Your task to perform on an android device: Open Chrome and go to settings Image 0: 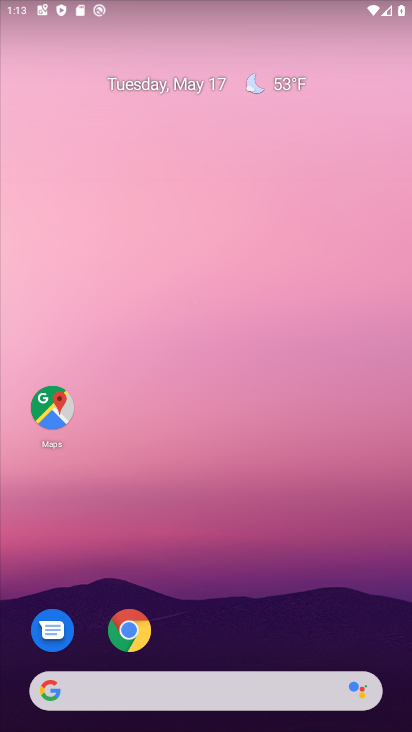
Step 0: click (138, 631)
Your task to perform on an android device: Open Chrome and go to settings Image 1: 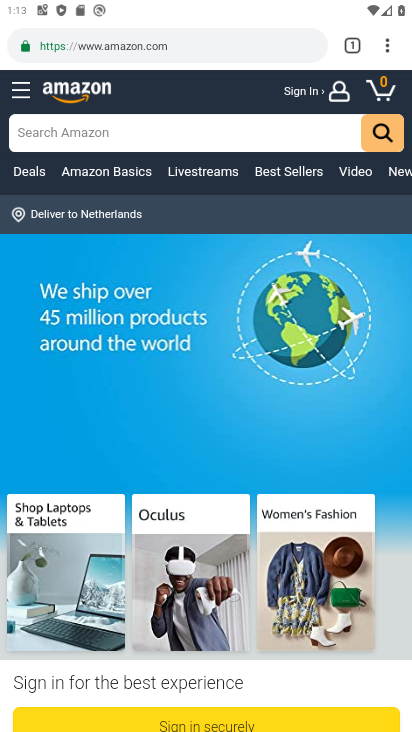
Step 1: click (389, 46)
Your task to perform on an android device: Open Chrome and go to settings Image 2: 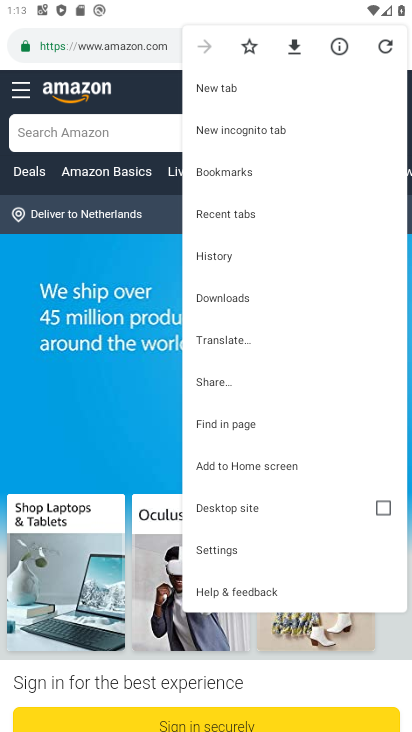
Step 2: click (244, 559)
Your task to perform on an android device: Open Chrome and go to settings Image 3: 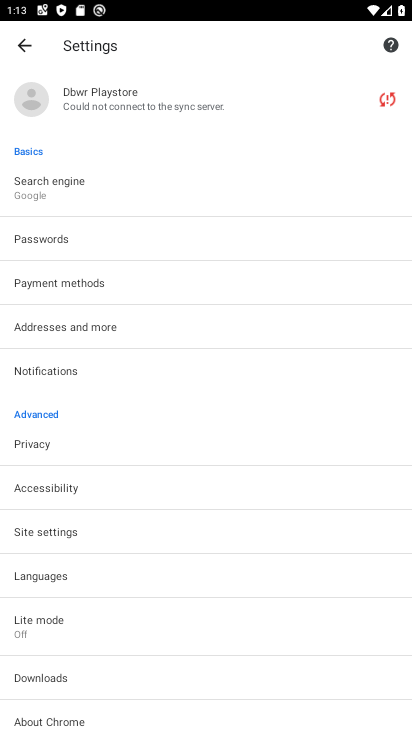
Step 3: task complete